Your task to perform on an android device: open device folders in google photos Image 0: 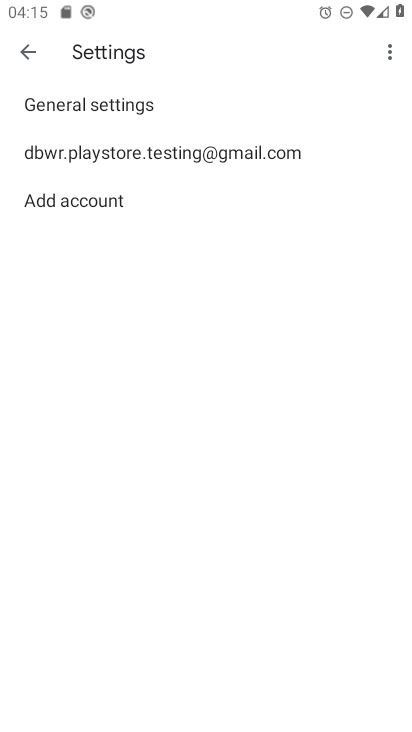
Step 0: press home button
Your task to perform on an android device: open device folders in google photos Image 1: 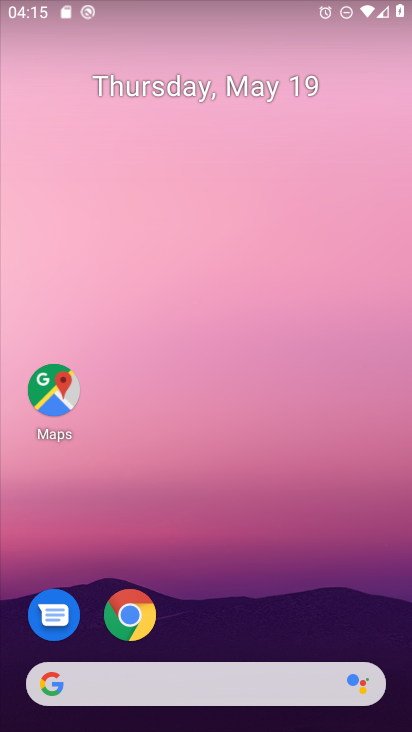
Step 1: drag from (263, 611) to (190, 165)
Your task to perform on an android device: open device folders in google photos Image 2: 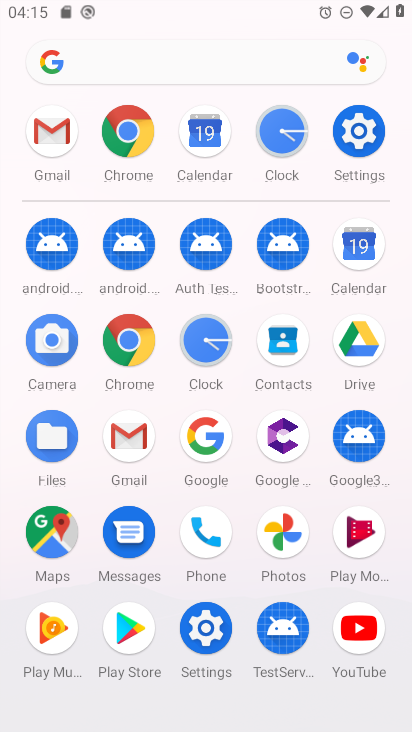
Step 2: click (274, 523)
Your task to perform on an android device: open device folders in google photos Image 3: 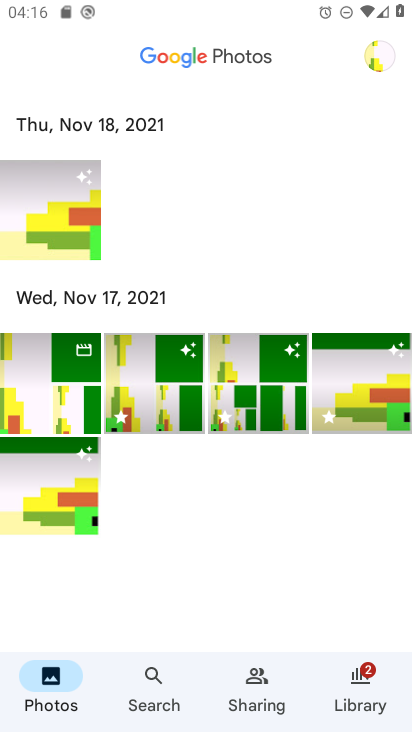
Step 3: click (385, 62)
Your task to perform on an android device: open device folders in google photos Image 4: 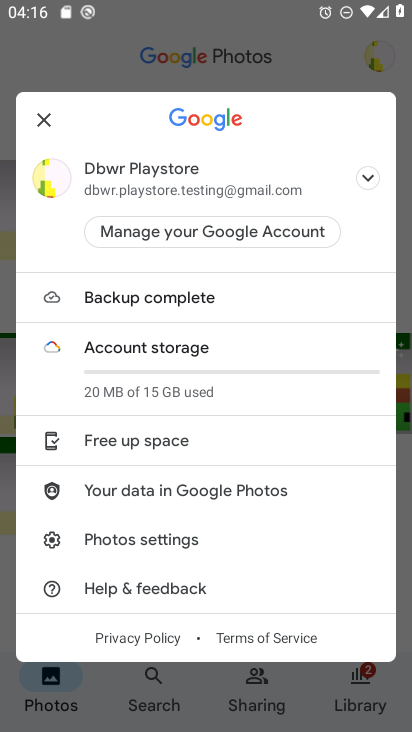
Step 4: task complete